Your task to perform on an android device: View the shopping cart on target. Add "jbl charge 4" to the cart on target Image 0: 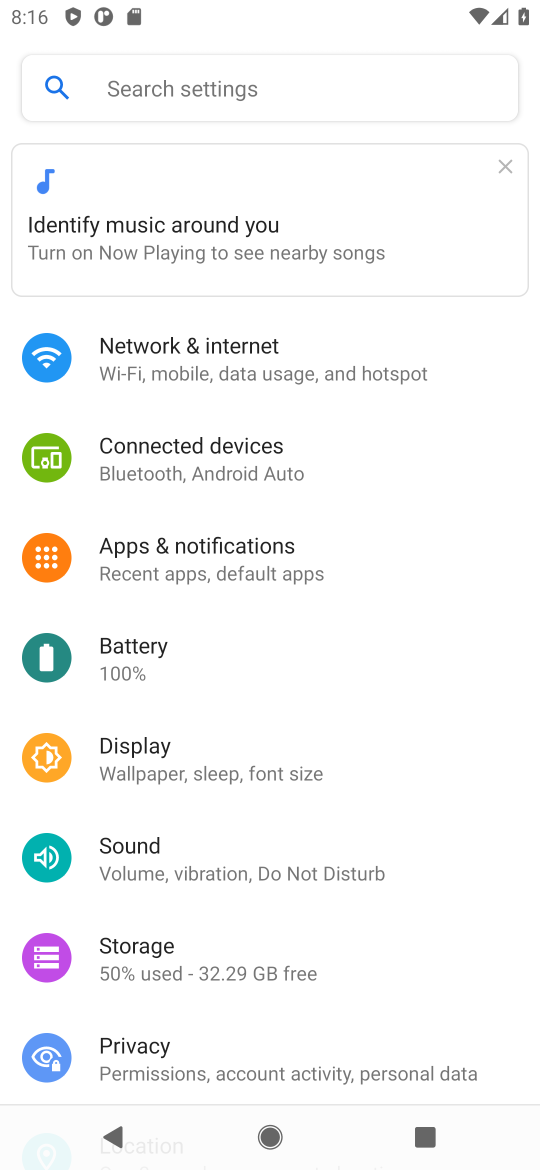
Step 0: press home button
Your task to perform on an android device: View the shopping cart on target. Add "jbl charge 4" to the cart on target Image 1: 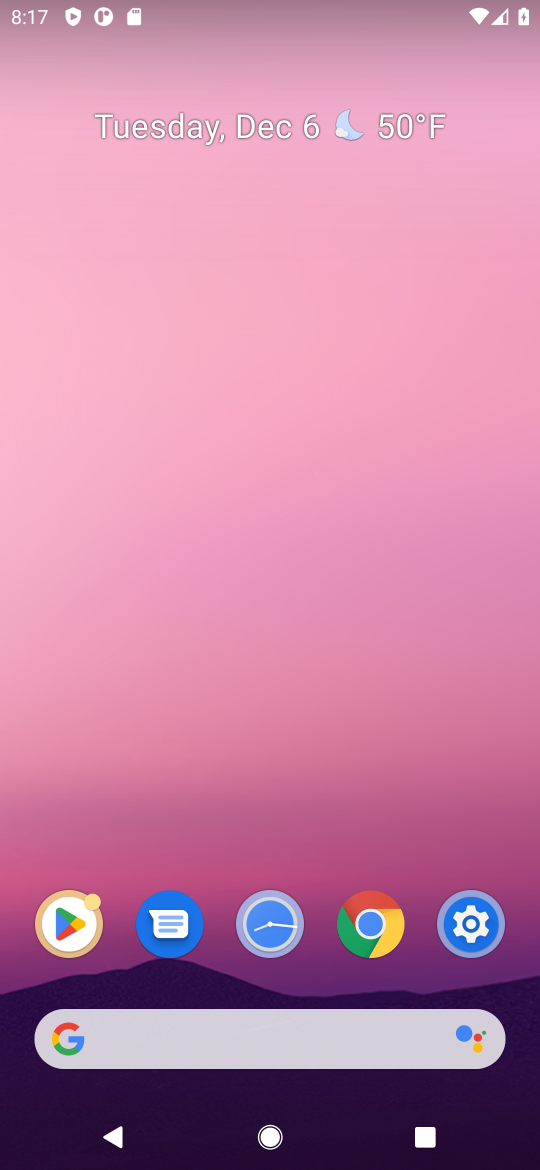
Step 1: click (284, 1017)
Your task to perform on an android device: View the shopping cart on target. Add "jbl charge 4" to the cart on target Image 2: 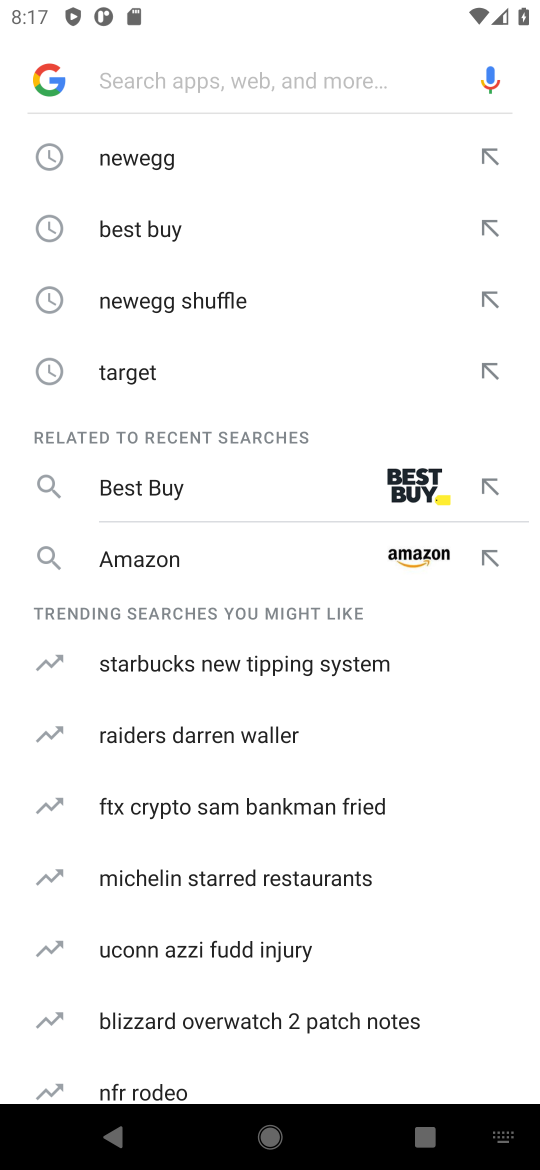
Step 2: type "target"
Your task to perform on an android device: View the shopping cart on target. Add "jbl charge 4" to the cart on target Image 3: 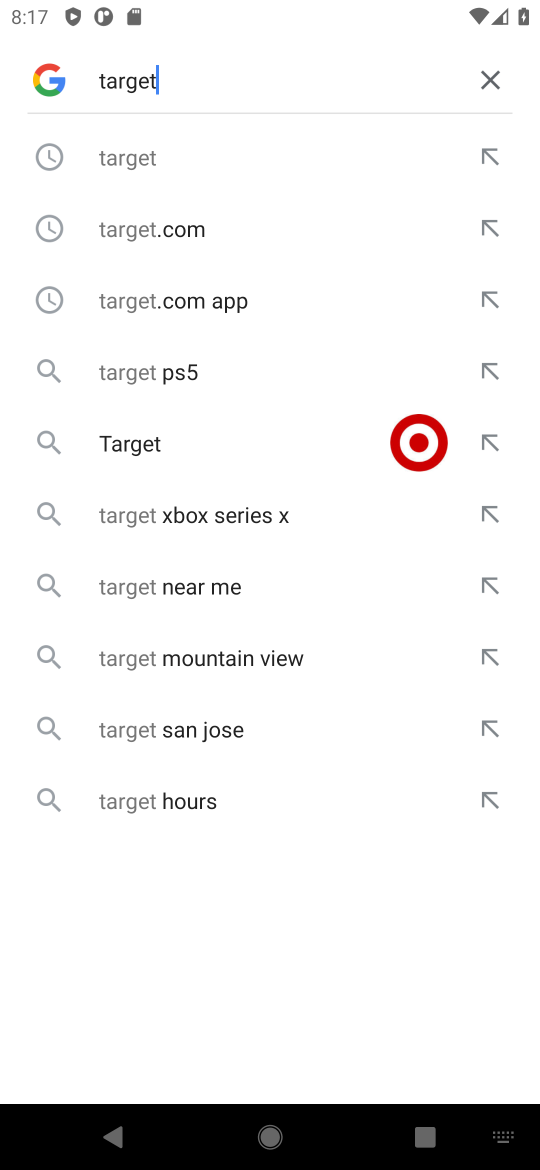
Step 3: click (140, 458)
Your task to perform on an android device: View the shopping cart on target. Add "jbl charge 4" to the cart on target Image 4: 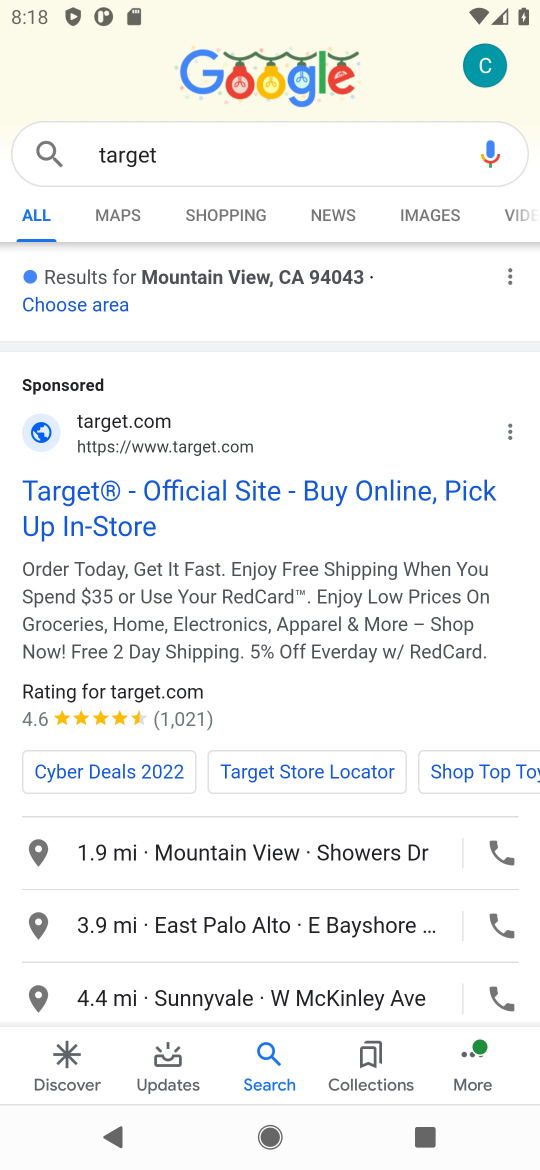
Step 4: click (112, 503)
Your task to perform on an android device: View the shopping cart on target. Add "jbl charge 4" to the cart on target Image 5: 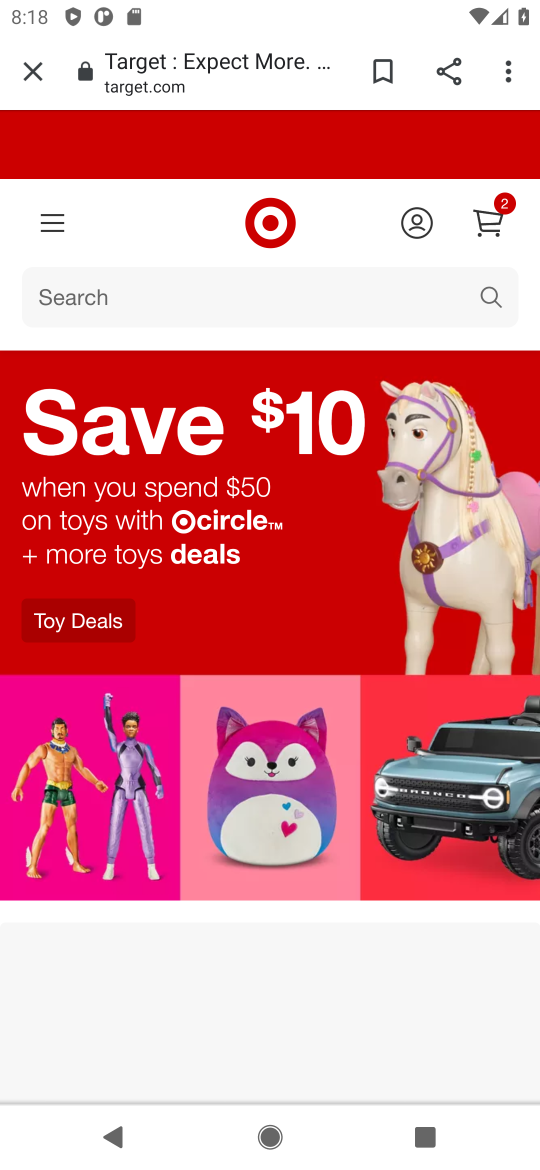
Step 5: click (103, 286)
Your task to perform on an android device: View the shopping cart on target. Add "jbl charge 4" to the cart on target Image 6: 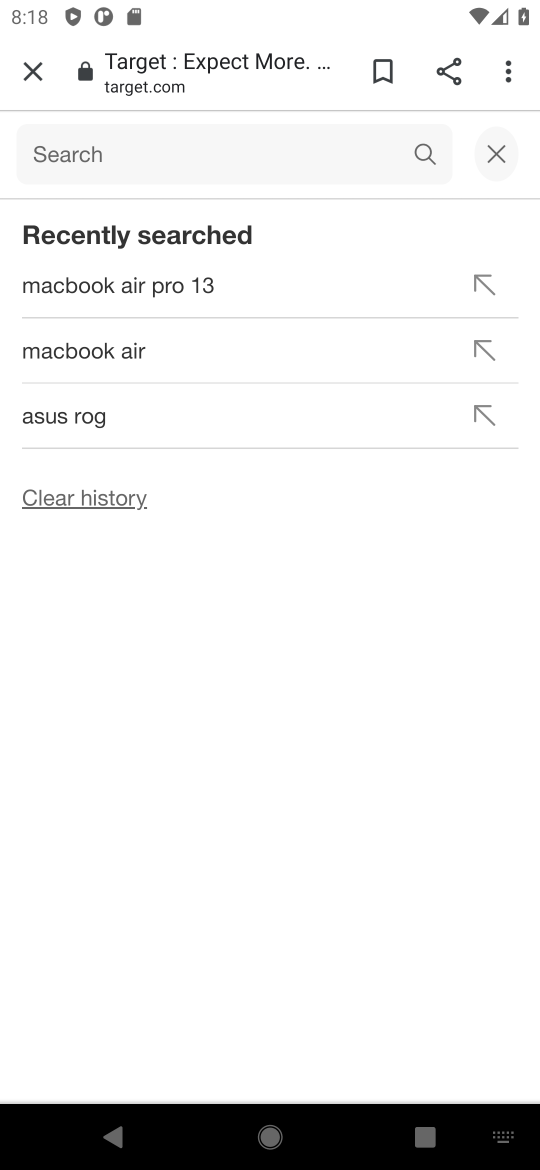
Step 6: type "jbl charge"
Your task to perform on an android device: View the shopping cart on target. Add "jbl charge 4" to the cart on target Image 7: 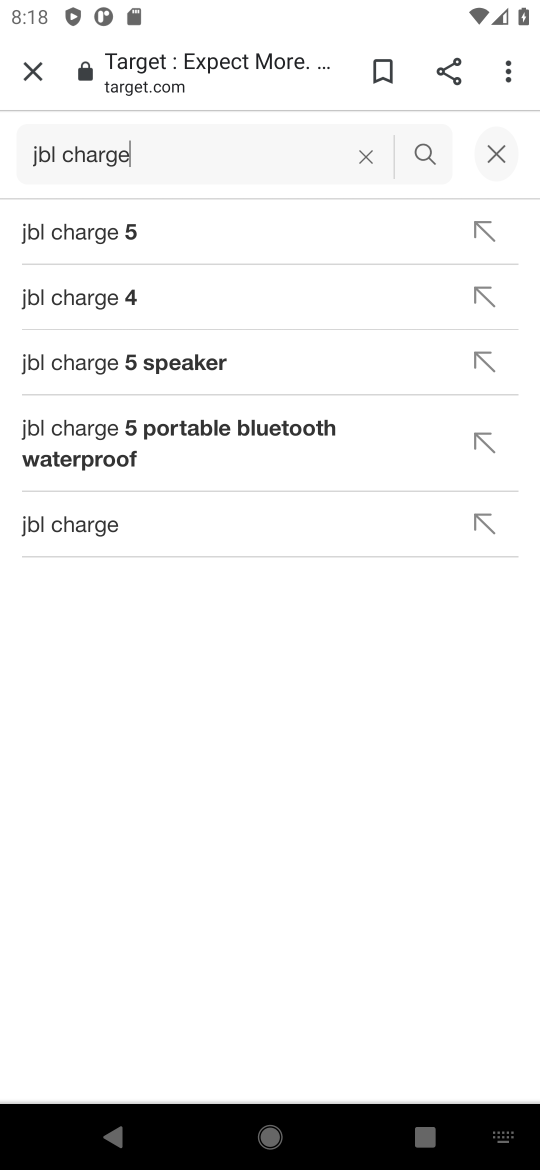
Step 7: click (148, 282)
Your task to perform on an android device: View the shopping cart on target. Add "jbl charge 4" to the cart on target Image 8: 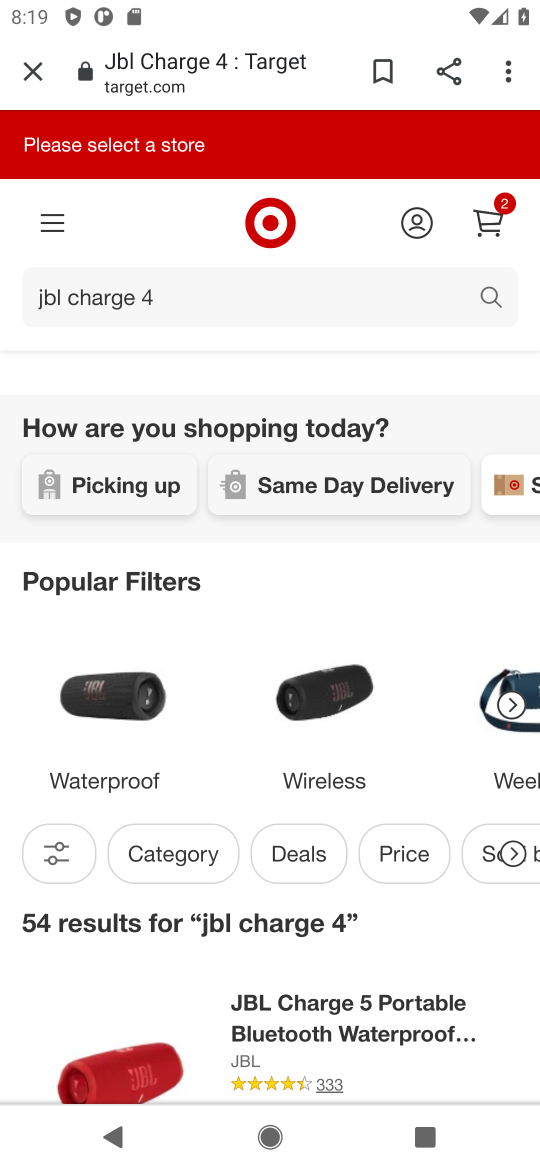
Step 8: click (92, 690)
Your task to perform on an android device: View the shopping cart on target. Add "jbl charge 4" to the cart on target Image 9: 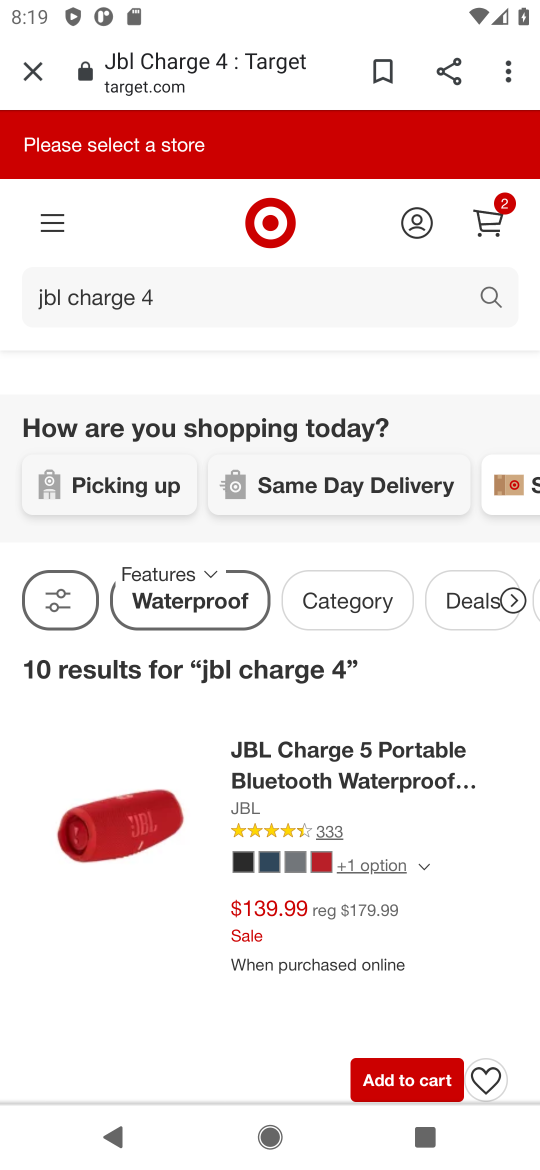
Step 9: click (402, 1067)
Your task to perform on an android device: View the shopping cart on target. Add "jbl charge 4" to the cart on target Image 10: 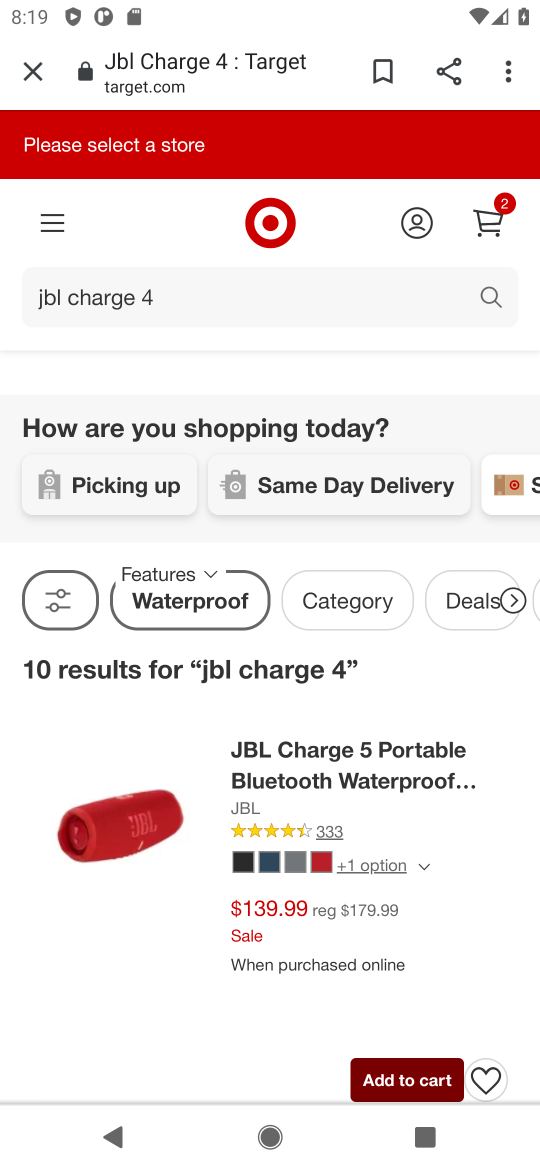
Step 10: task complete